Your task to perform on an android device: check out phone information Image 0: 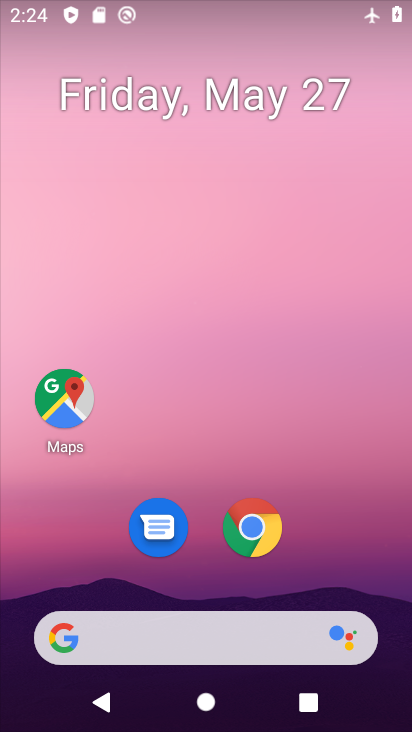
Step 0: click (407, 655)
Your task to perform on an android device: check out phone information Image 1: 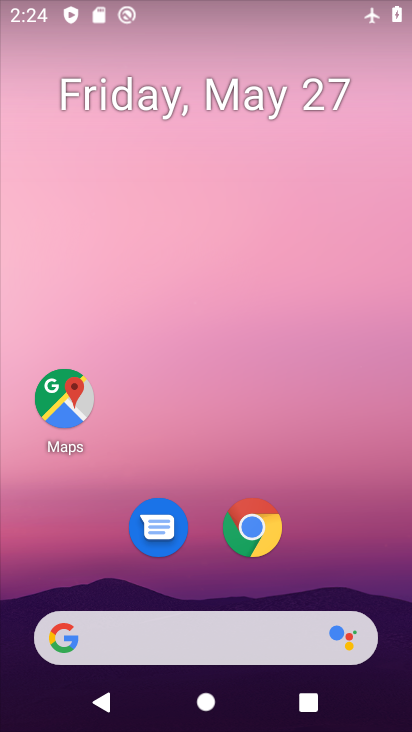
Step 1: drag from (231, 560) to (197, 7)
Your task to perform on an android device: check out phone information Image 2: 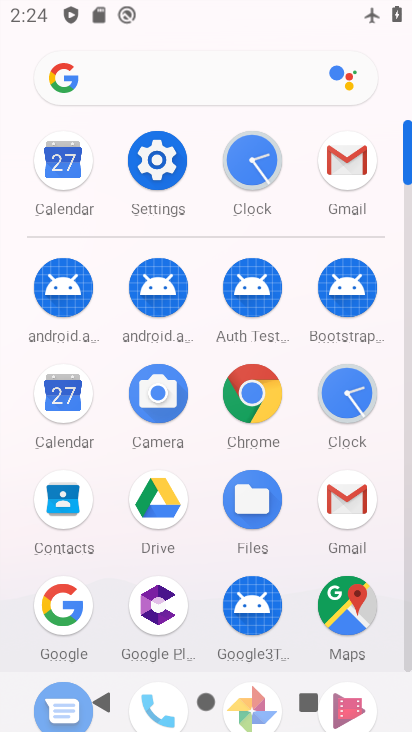
Step 2: click (146, 160)
Your task to perform on an android device: check out phone information Image 3: 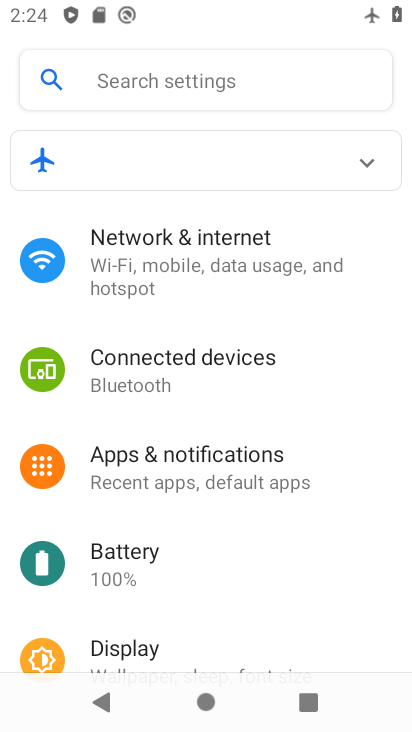
Step 3: drag from (202, 634) to (247, 32)
Your task to perform on an android device: check out phone information Image 4: 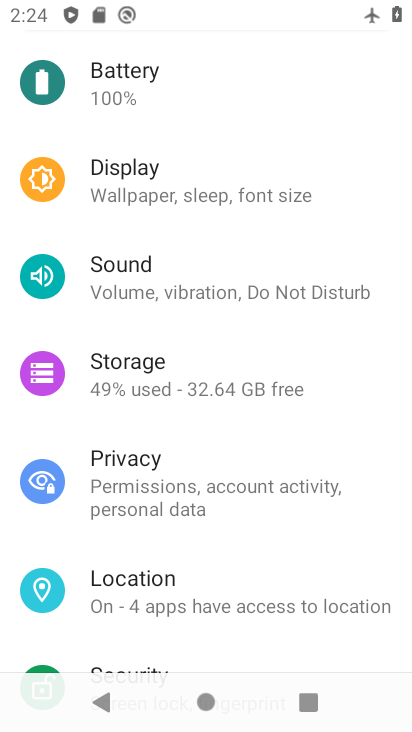
Step 4: drag from (240, 603) to (312, 25)
Your task to perform on an android device: check out phone information Image 5: 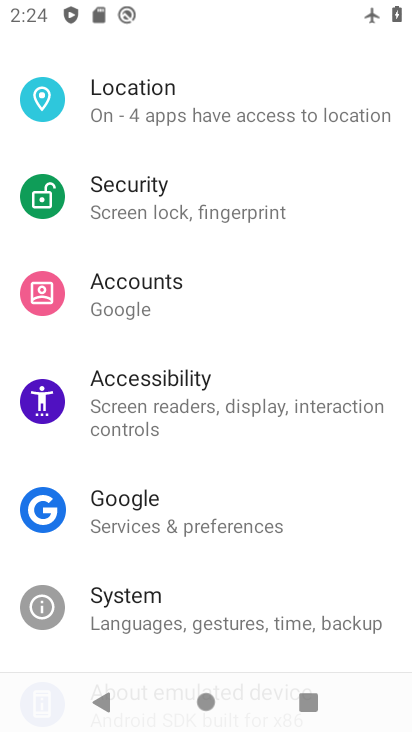
Step 5: drag from (272, 612) to (256, 32)
Your task to perform on an android device: check out phone information Image 6: 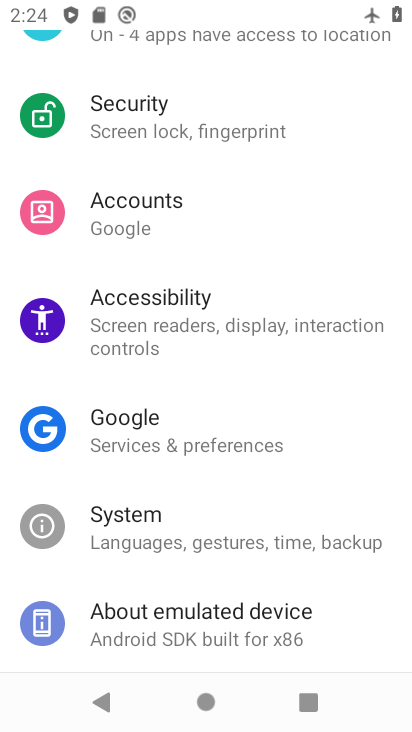
Step 6: click (218, 633)
Your task to perform on an android device: check out phone information Image 7: 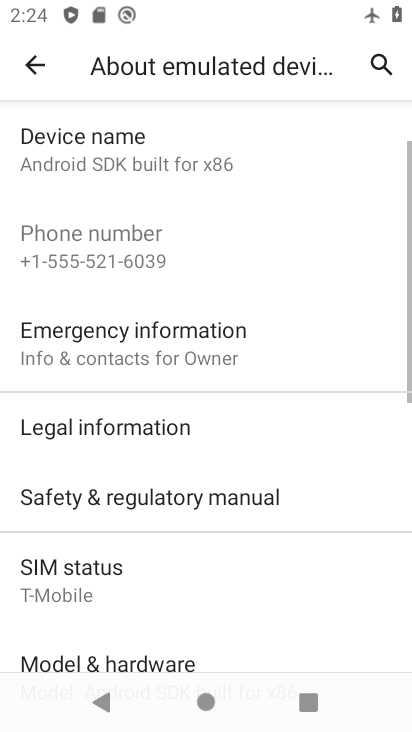
Step 7: task complete